Your task to perform on an android device: What's the weather? Image 0: 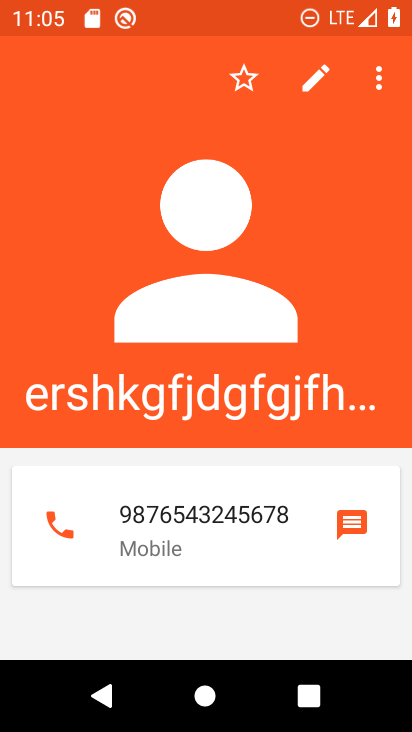
Step 0: press home button
Your task to perform on an android device: What's the weather? Image 1: 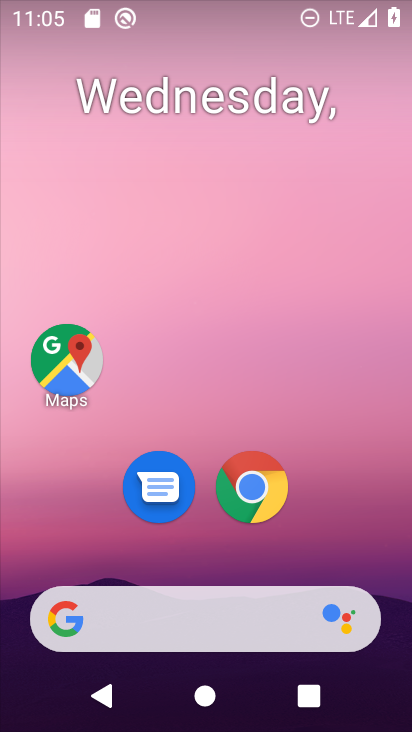
Step 1: click (179, 610)
Your task to perform on an android device: What's the weather? Image 2: 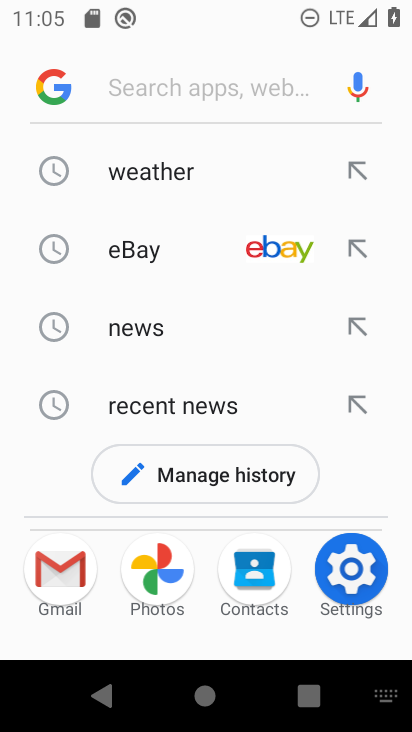
Step 2: click (126, 165)
Your task to perform on an android device: What's the weather? Image 3: 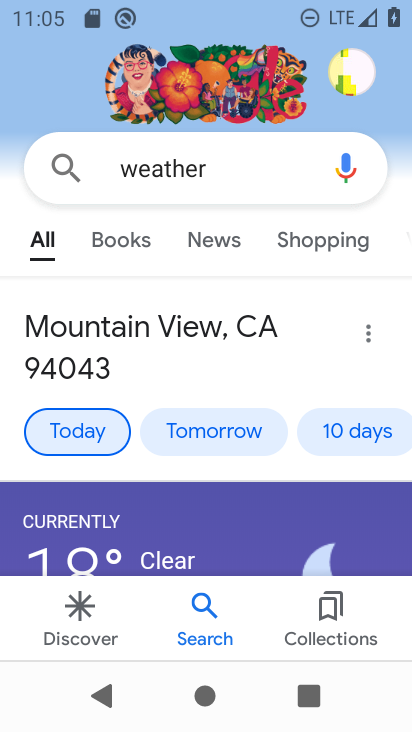
Step 3: task complete